Your task to perform on an android device: What's on my calendar today? Image 0: 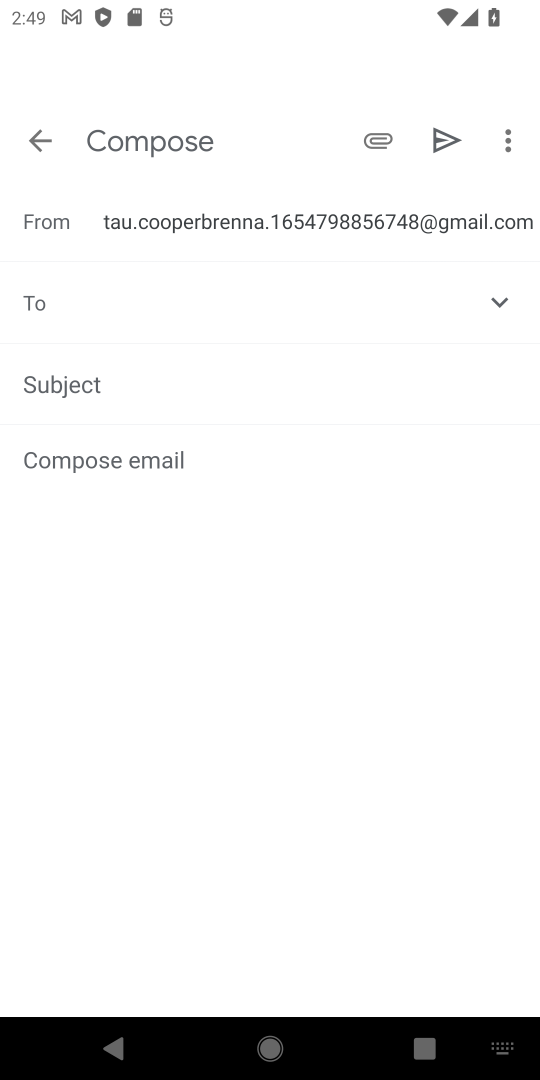
Step 0: press home button
Your task to perform on an android device: What's on my calendar today? Image 1: 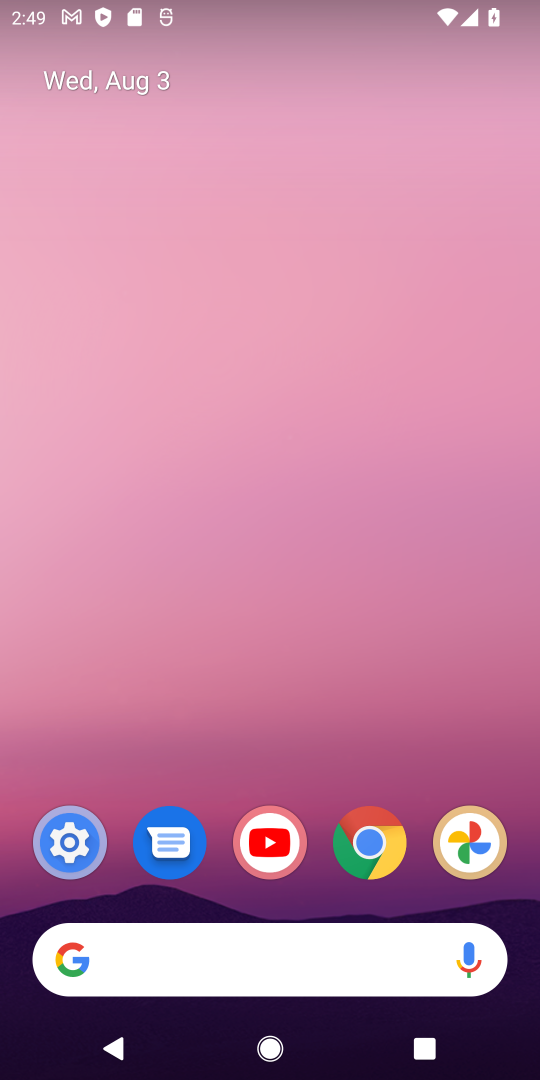
Step 1: drag from (392, 988) to (329, 157)
Your task to perform on an android device: What's on my calendar today? Image 2: 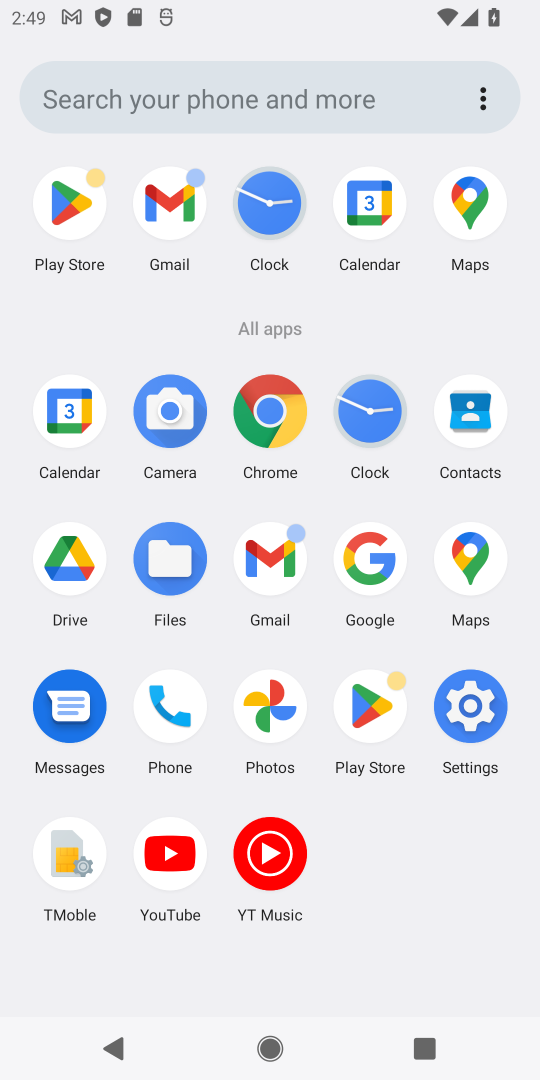
Step 2: click (90, 415)
Your task to perform on an android device: What's on my calendar today? Image 3: 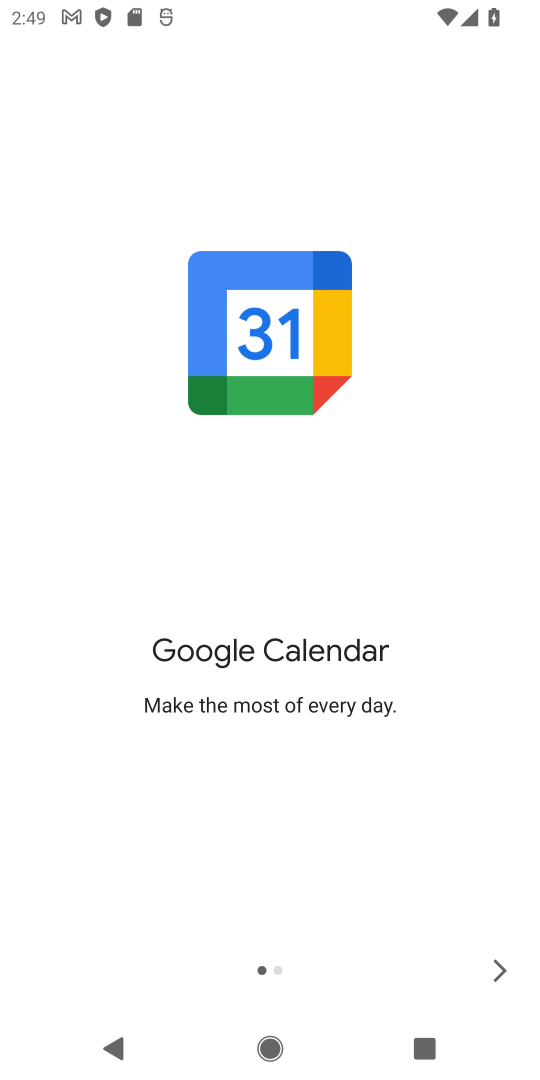
Step 3: click (502, 985)
Your task to perform on an android device: What's on my calendar today? Image 4: 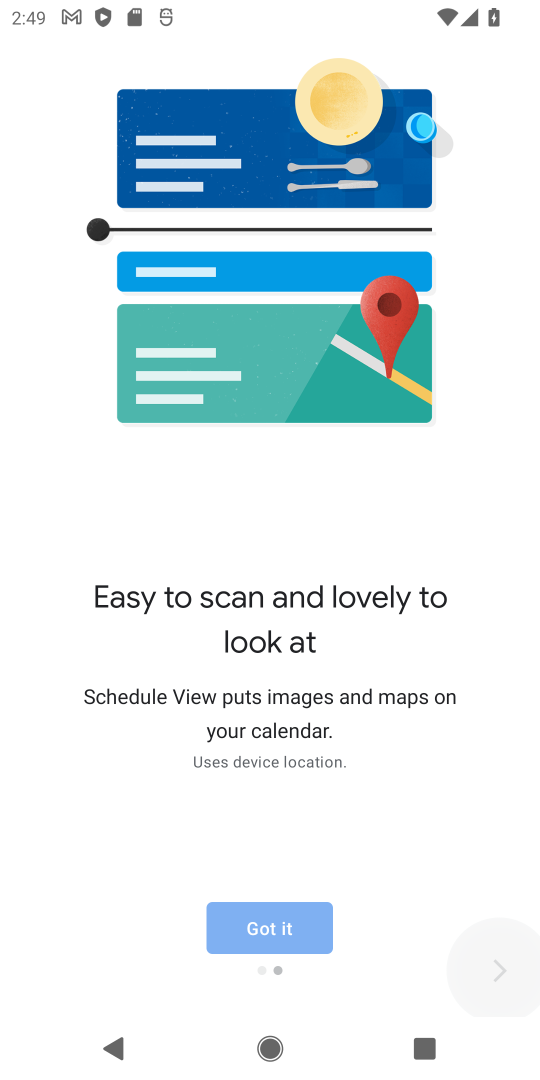
Step 4: click (500, 980)
Your task to perform on an android device: What's on my calendar today? Image 5: 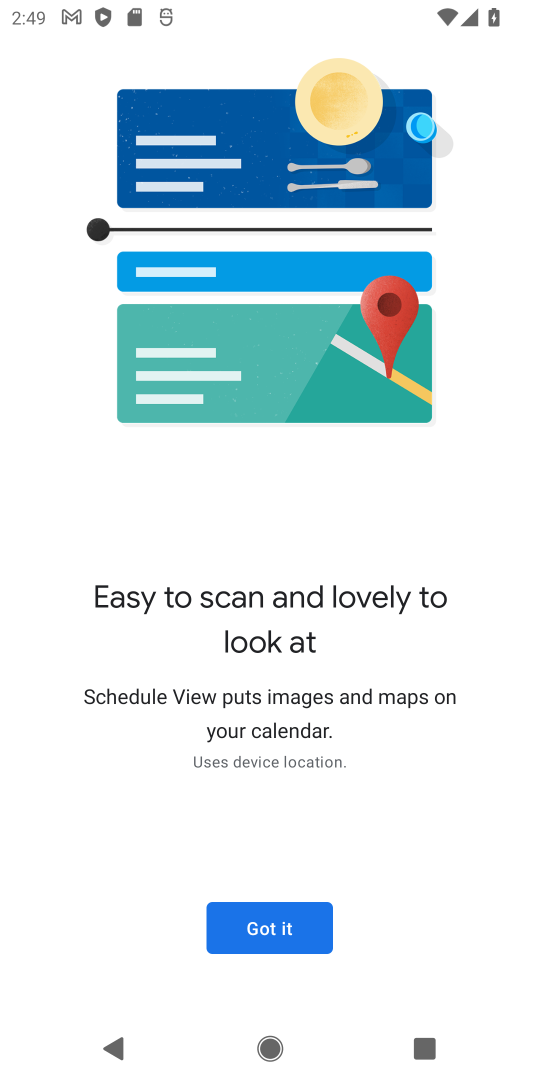
Step 5: click (304, 928)
Your task to perform on an android device: What's on my calendar today? Image 6: 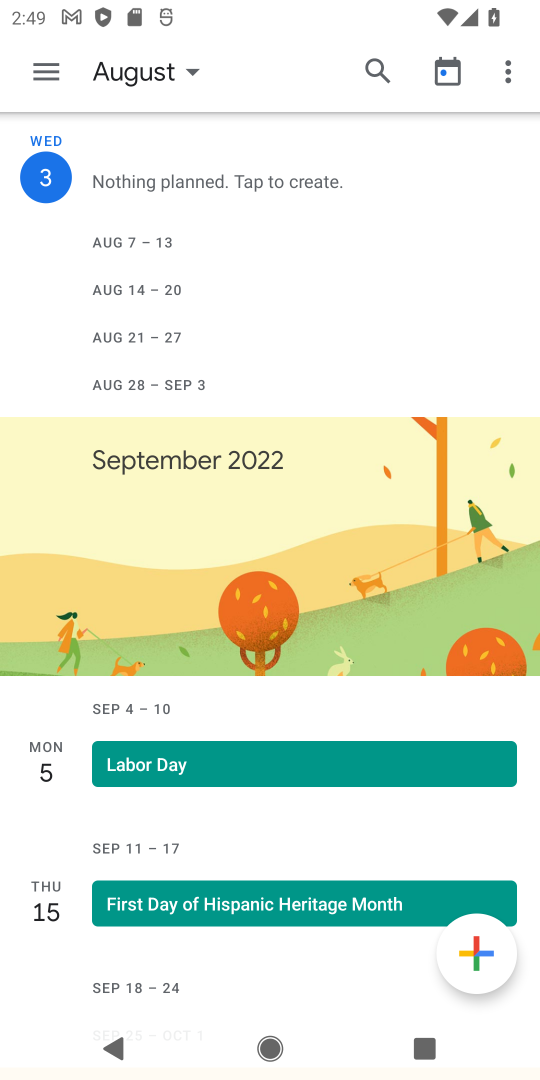
Step 6: task complete